Your task to perform on an android device: read, delete, or share a saved page in the chrome app Image 0: 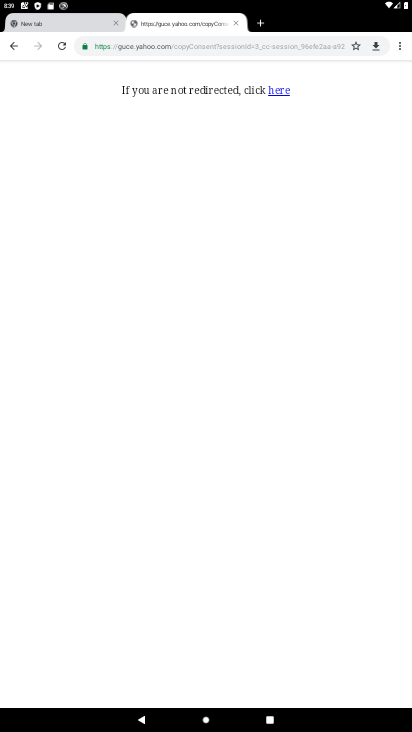
Step 0: click (390, 46)
Your task to perform on an android device: read, delete, or share a saved page in the chrome app Image 1: 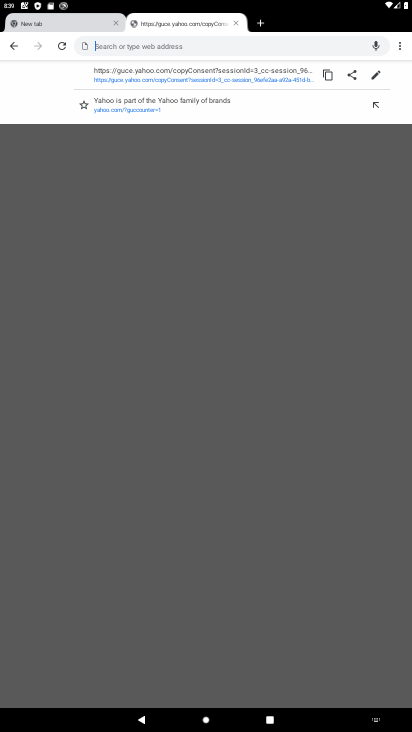
Step 1: click (406, 46)
Your task to perform on an android device: read, delete, or share a saved page in the chrome app Image 2: 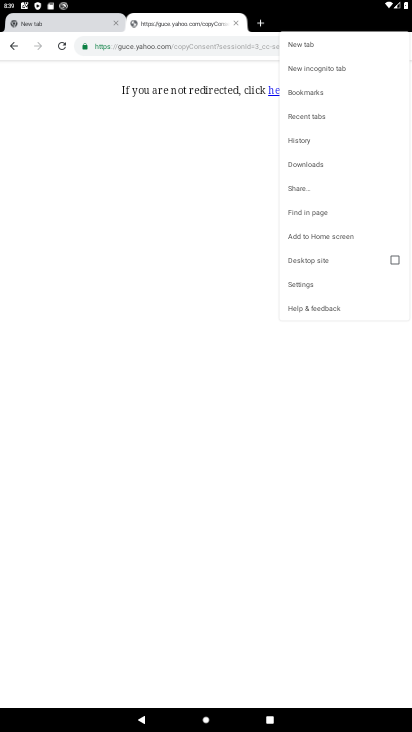
Step 2: click (332, 168)
Your task to perform on an android device: read, delete, or share a saved page in the chrome app Image 3: 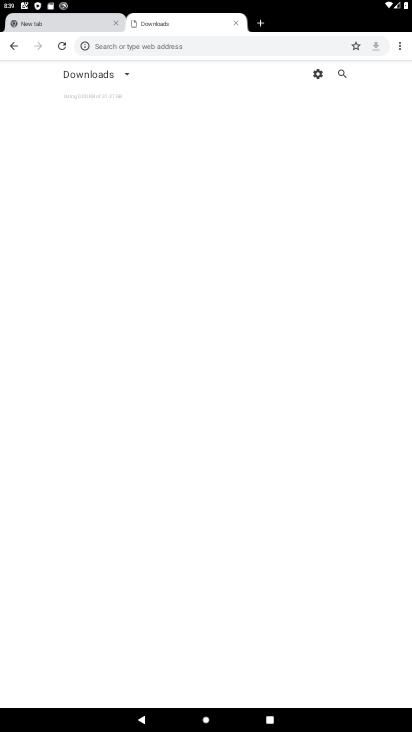
Step 3: task complete